Your task to perform on an android device: Open settings on Google Maps Image 0: 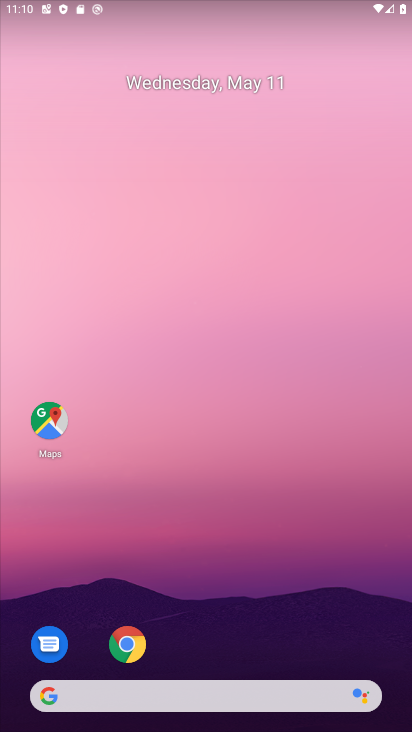
Step 0: click (61, 423)
Your task to perform on an android device: Open settings on Google Maps Image 1: 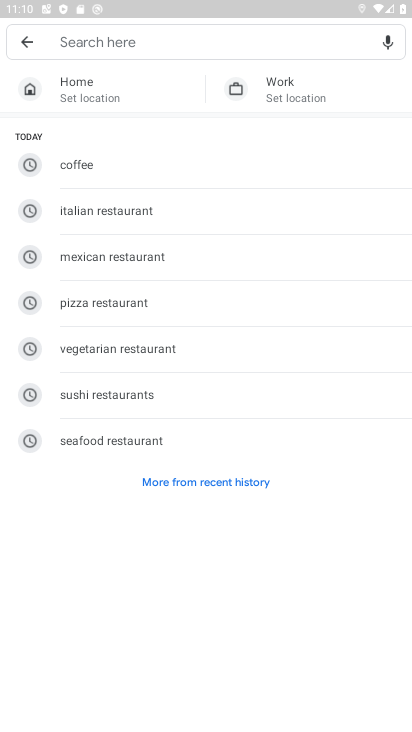
Step 1: click (20, 49)
Your task to perform on an android device: Open settings on Google Maps Image 2: 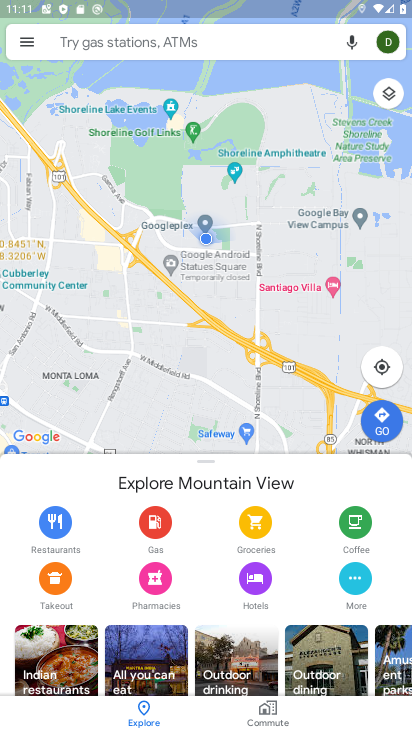
Step 2: click (17, 49)
Your task to perform on an android device: Open settings on Google Maps Image 3: 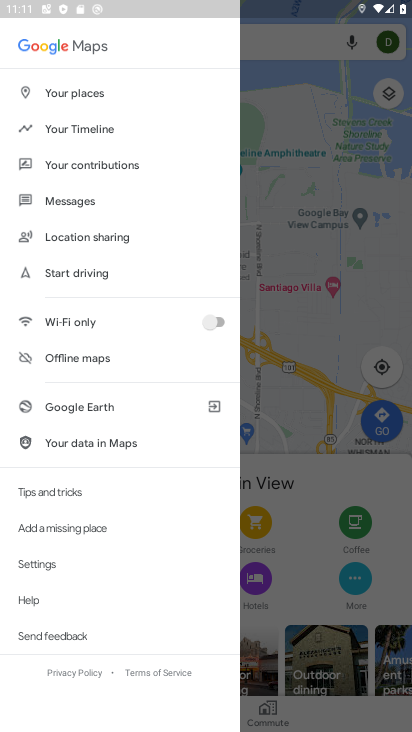
Step 3: click (120, 550)
Your task to perform on an android device: Open settings on Google Maps Image 4: 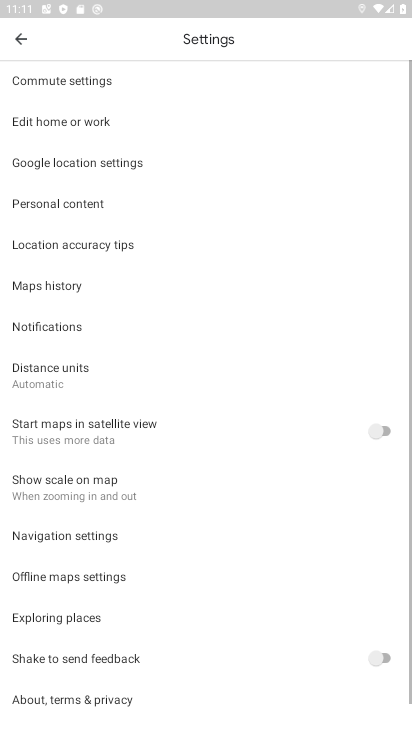
Step 4: task complete